Your task to perform on an android device: read, delete, or share a saved page in the chrome app Image 0: 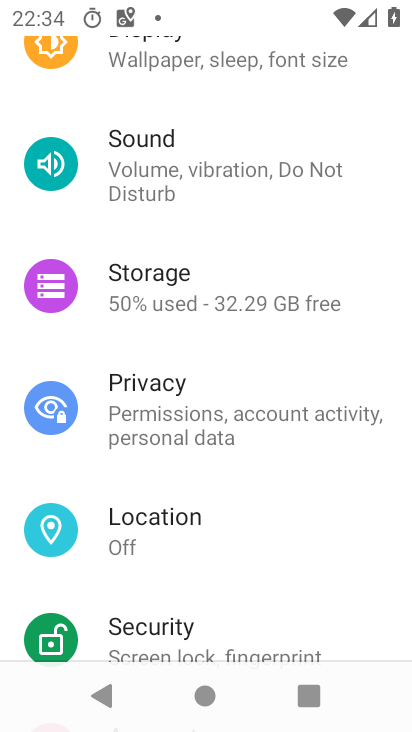
Step 0: press enter
Your task to perform on an android device: read, delete, or share a saved page in the chrome app Image 1: 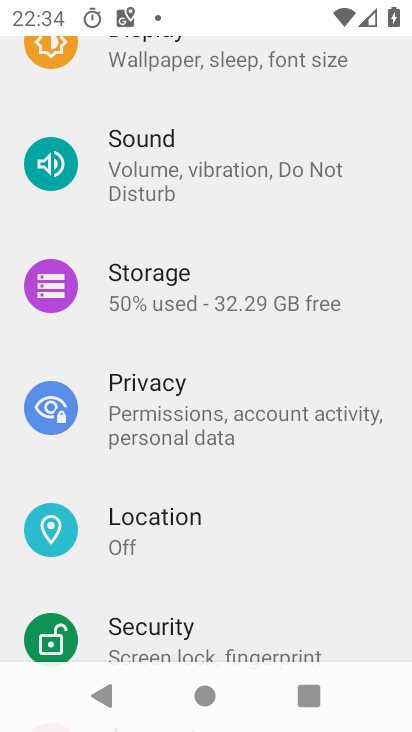
Step 1: press home button
Your task to perform on an android device: read, delete, or share a saved page in the chrome app Image 2: 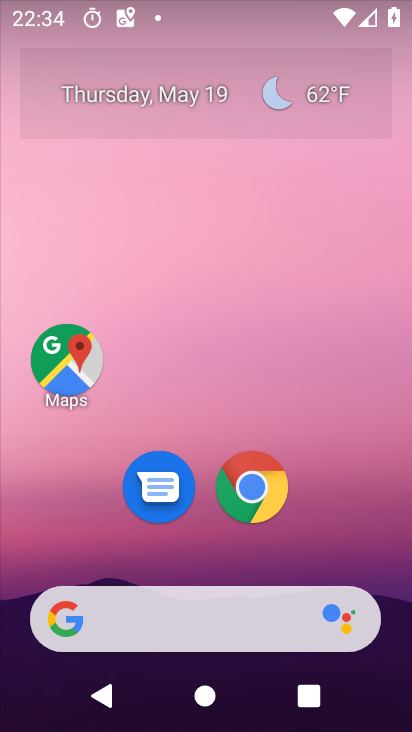
Step 2: click (264, 493)
Your task to perform on an android device: read, delete, or share a saved page in the chrome app Image 3: 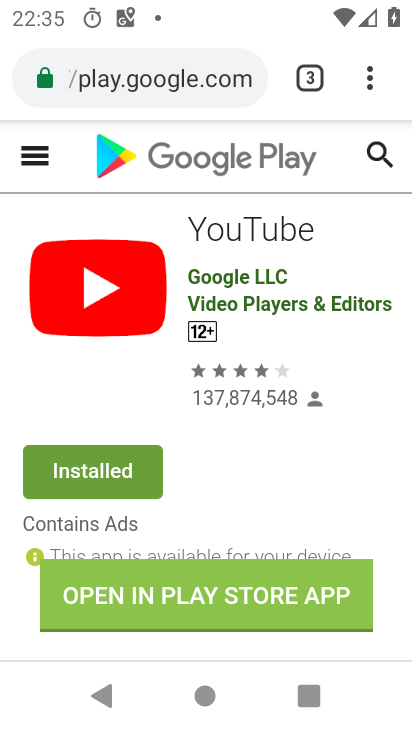
Step 3: click (375, 76)
Your task to perform on an android device: read, delete, or share a saved page in the chrome app Image 4: 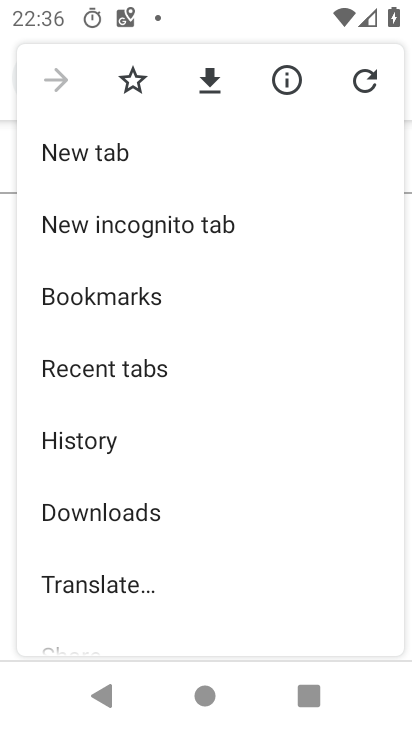
Step 4: drag from (249, 611) to (262, 448)
Your task to perform on an android device: read, delete, or share a saved page in the chrome app Image 5: 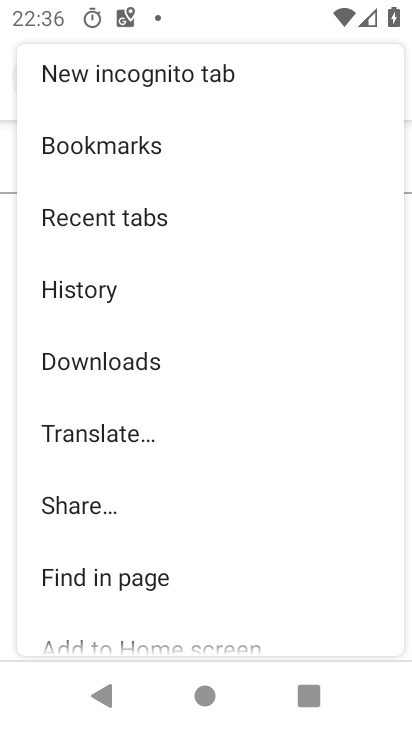
Step 5: click (103, 362)
Your task to perform on an android device: read, delete, or share a saved page in the chrome app Image 6: 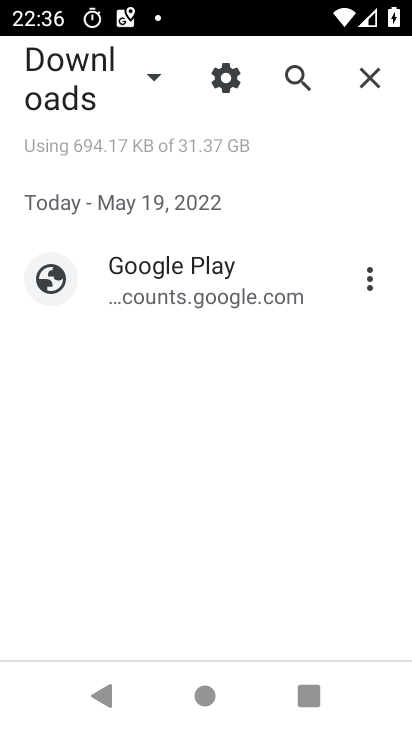
Step 6: click (150, 78)
Your task to perform on an android device: read, delete, or share a saved page in the chrome app Image 7: 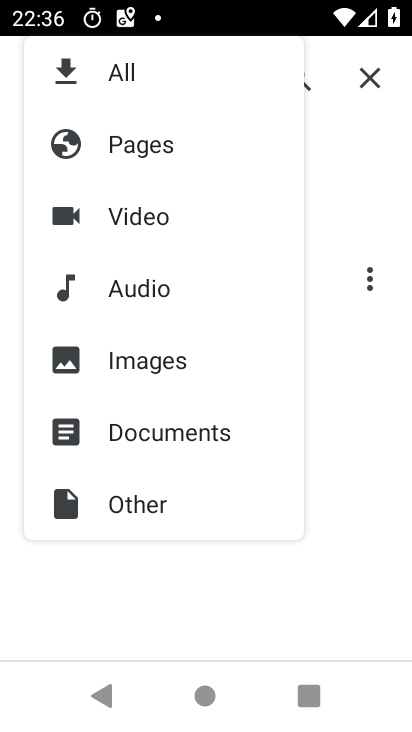
Step 7: click (145, 138)
Your task to perform on an android device: read, delete, or share a saved page in the chrome app Image 8: 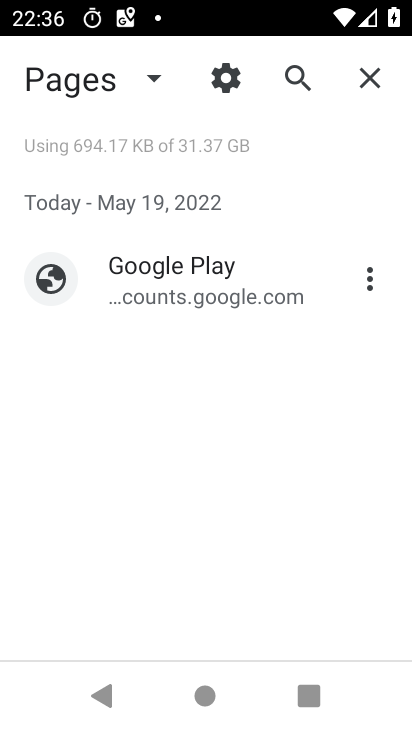
Step 8: click (370, 281)
Your task to perform on an android device: read, delete, or share a saved page in the chrome app Image 9: 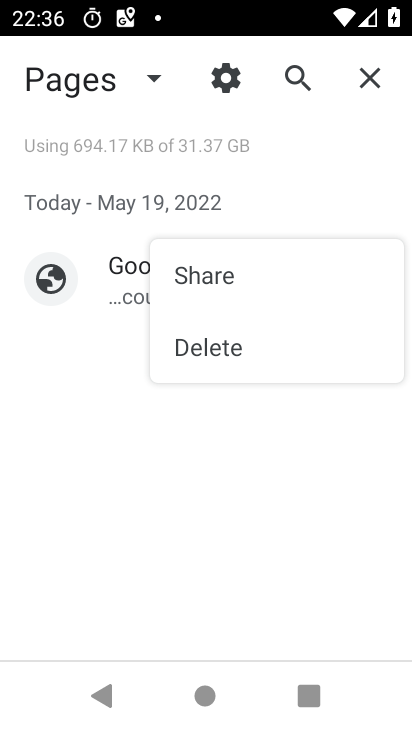
Step 9: click (223, 349)
Your task to perform on an android device: read, delete, or share a saved page in the chrome app Image 10: 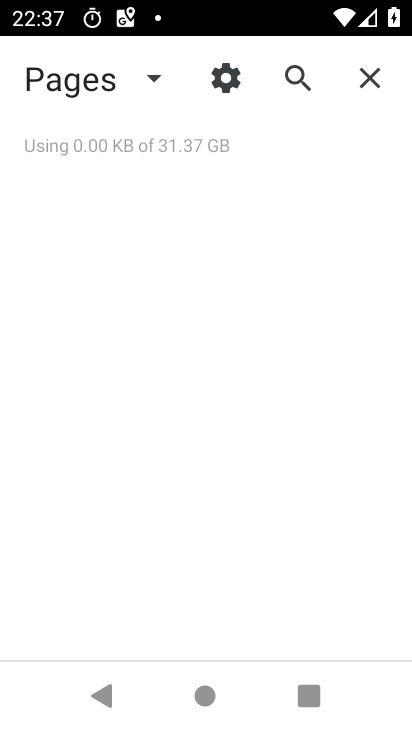
Step 10: task complete